Your task to perform on an android device: Open network settings Image 0: 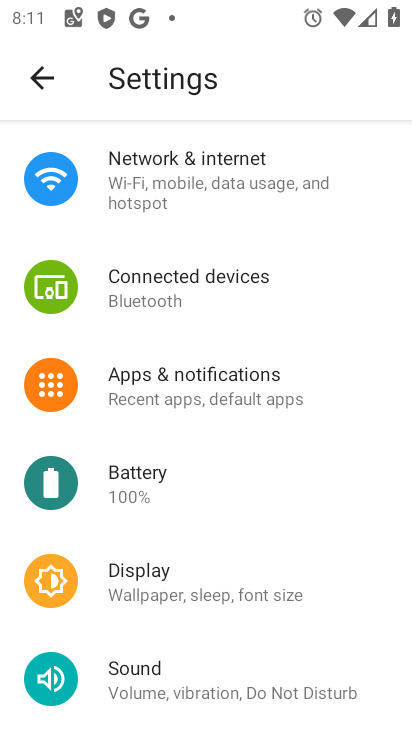
Step 0: press home button
Your task to perform on an android device: Open network settings Image 1: 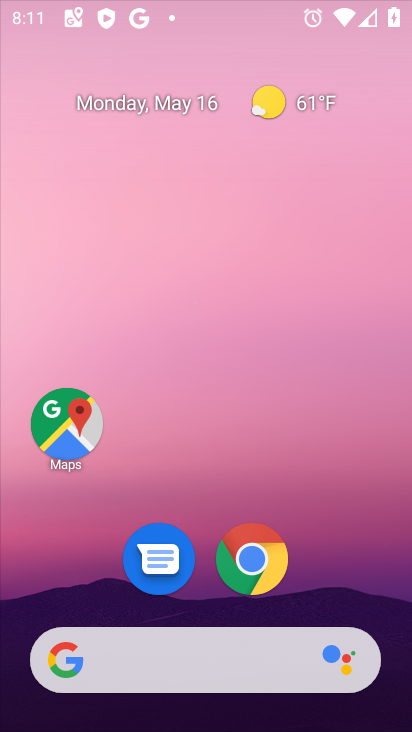
Step 1: drag from (330, 584) to (324, 200)
Your task to perform on an android device: Open network settings Image 2: 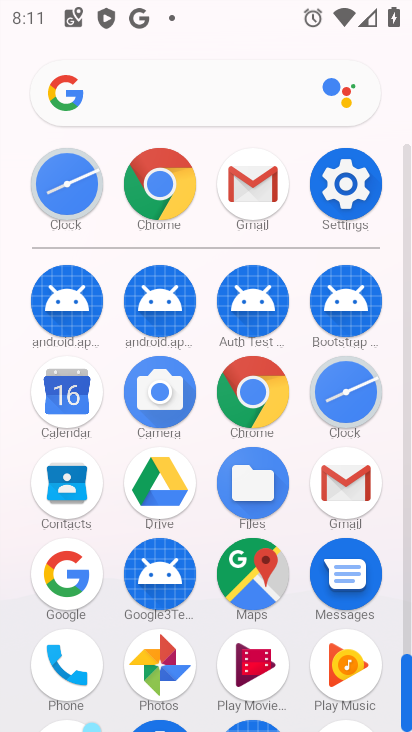
Step 2: click (346, 198)
Your task to perform on an android device: Open network settings Image 3: 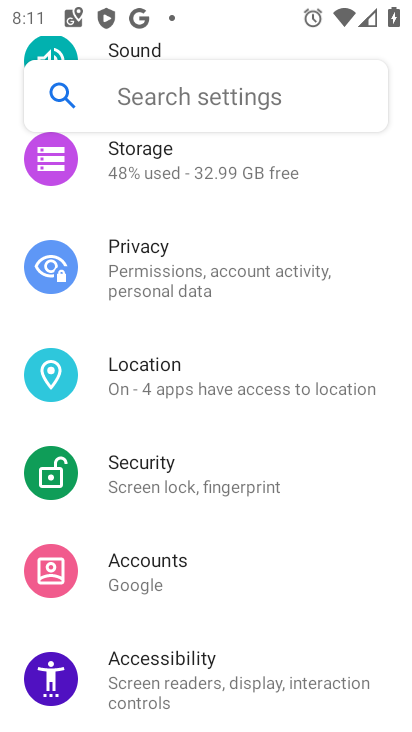
Step 3: drag from (238, 205) to (206, 575)
Your task to perform on an android device: Open network settings Image 4: 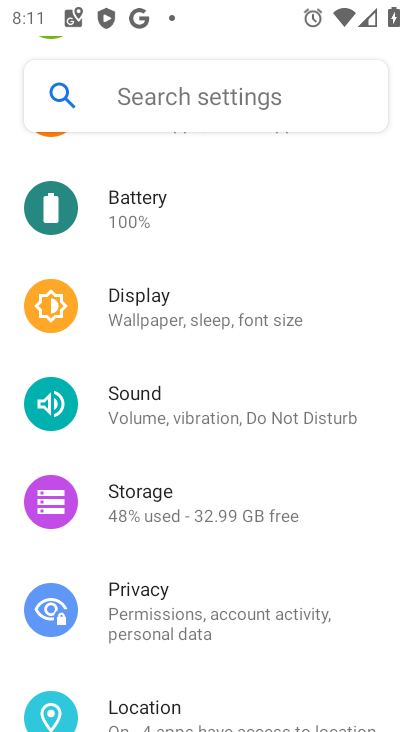
Step 4: drag from (267, 183) to (276, 629)
Your task to perform on an android device: Open network settings Image 5: 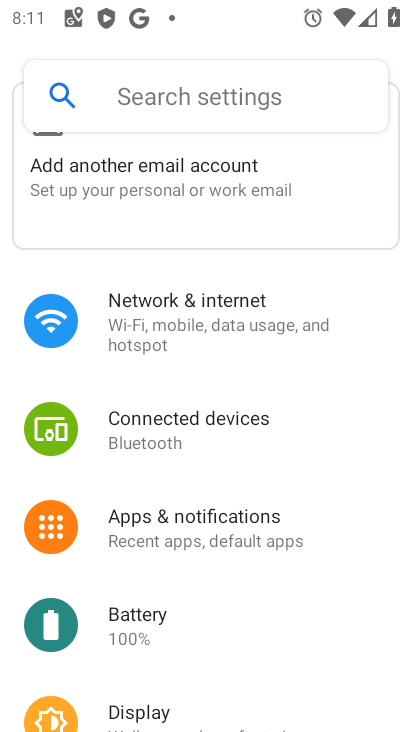
Step 5: click (226, 303)
Your task to perform on an android device: Open network settings Image 6: 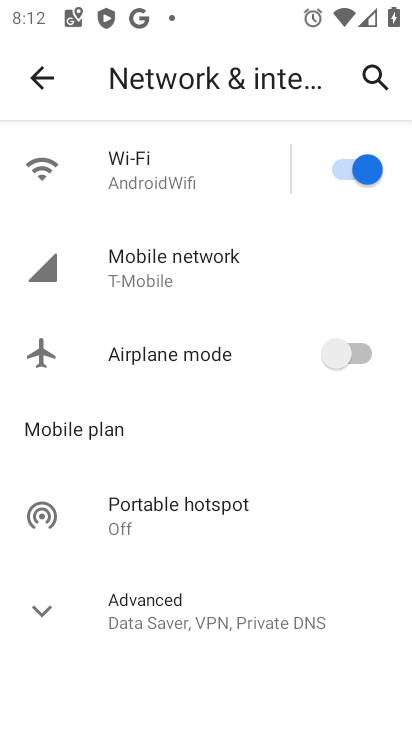
Step 6: task complete